Your task to perform on an android device: see tabs open on other devices in the chrome app Image 0: 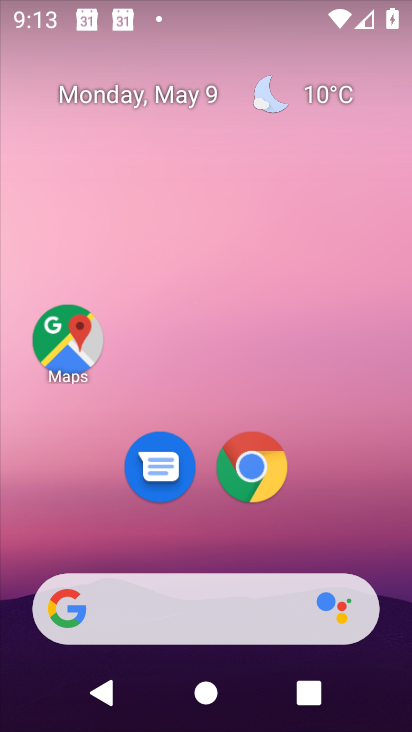
Step 0: click (255, 482)
Your task to perform on an android device: see tabs open on other devices in the chrome app Image 1: 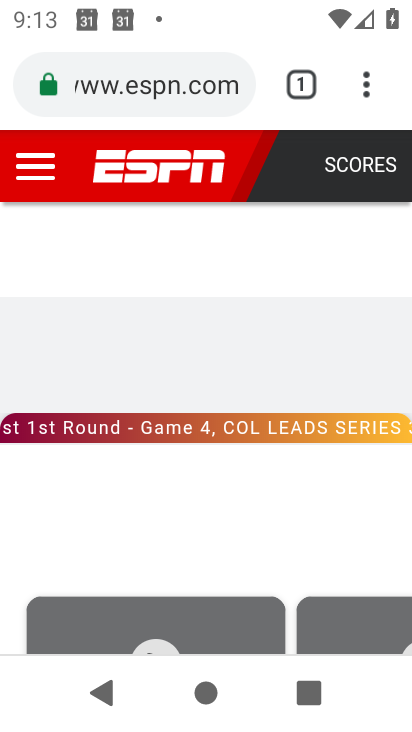
Step 1: click (363, 79)
Your task to perform on an android device: see tabs open on other devices in the chrome app Image 2: 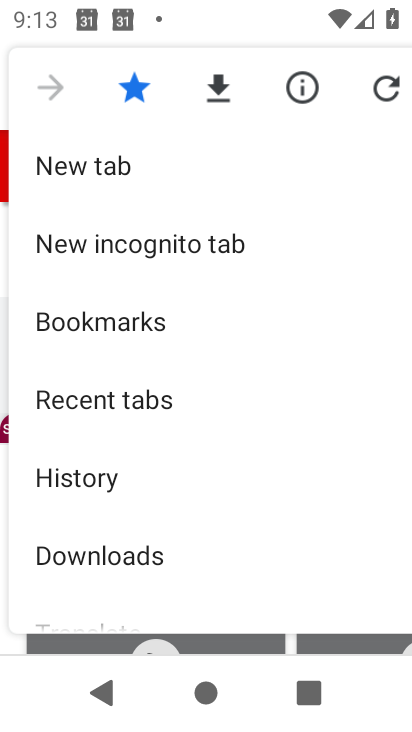
Step 2: click (74, 399)
Your task to perform on an android device: see tabs open on other devices in the chrome app Image 3: 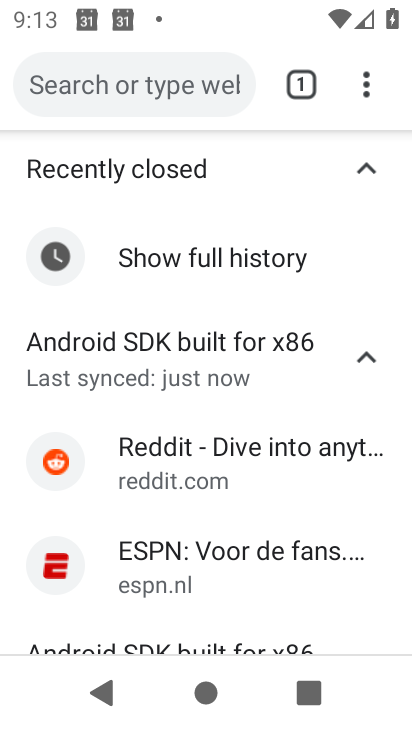
Step 3: task complete